Your task to perform on an android device: toggle show notifications on the lock screen Image 0: 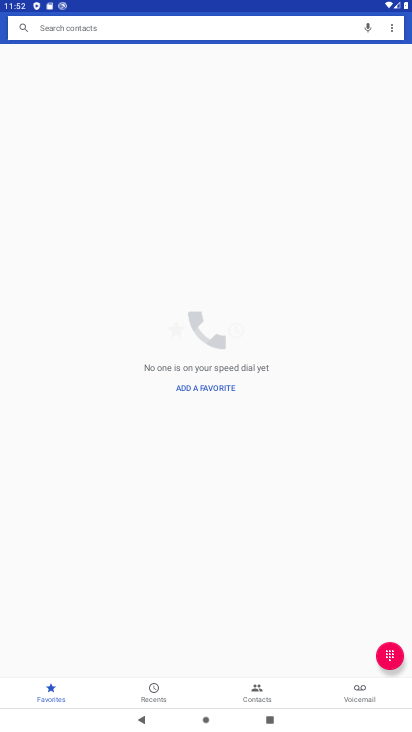
Step 0: press home button
Your task to perform on an android device: toggle show notifications on the lock screen Image 1: 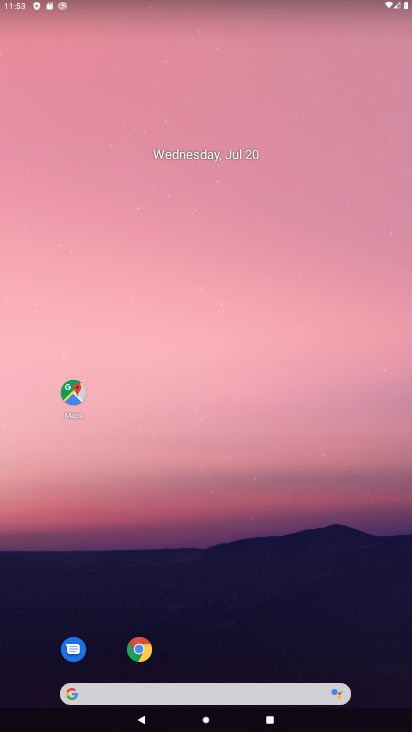
Step 1: task complete